Your task to perform on an android device: change notification settings in the gmail app Image 0: 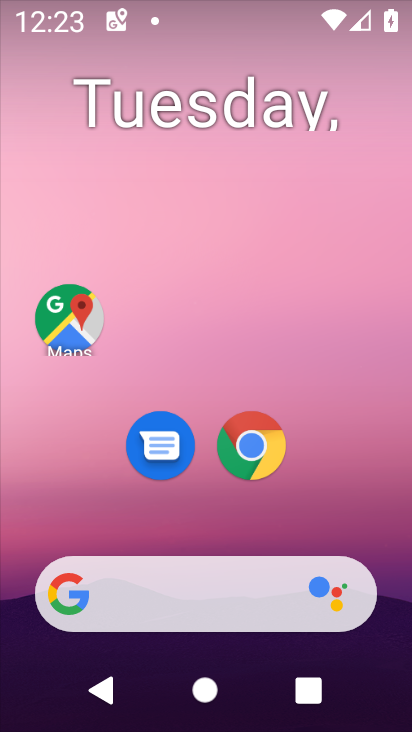
Step 0: drag from (378, 489) to (377, 153)
Your task to perform on an android device: change notification settings in the gmail app Image 1: 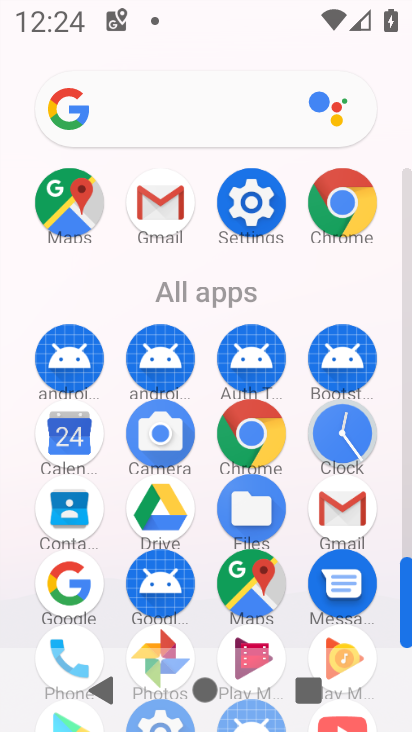
Step 1: drag from (386, 540) to (389, 318)
Your task to perform on an android device: change notification settings in the gmail app Image 2: 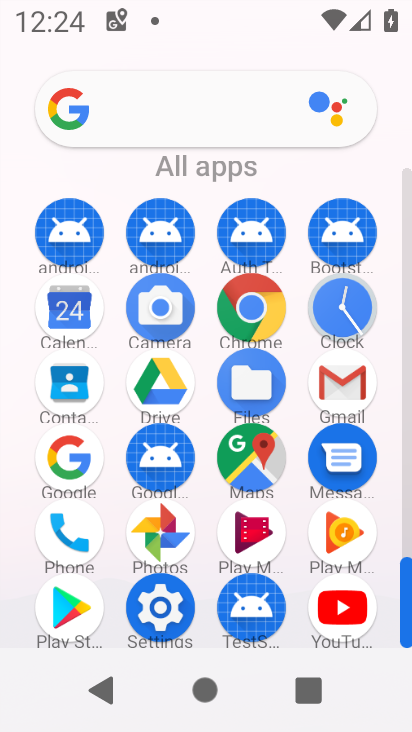
Step 2: click (335, 377)
Your task to perform on an android device: change notification settings in the gmail app Image 3: 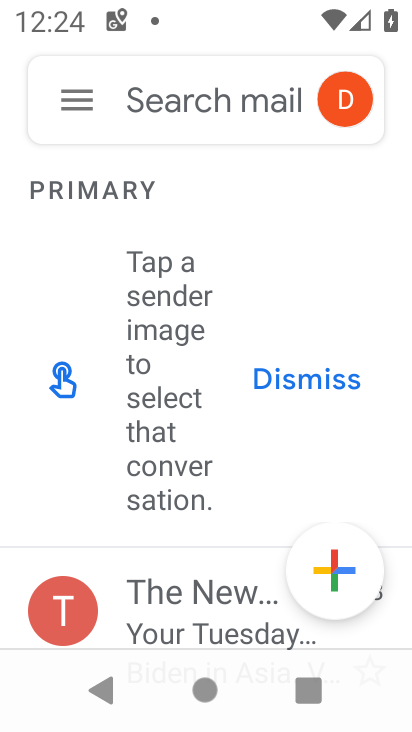
Step 3: click (78, 103)
Your task to perform on an android device: change notification settings in the gmail app Image 4: 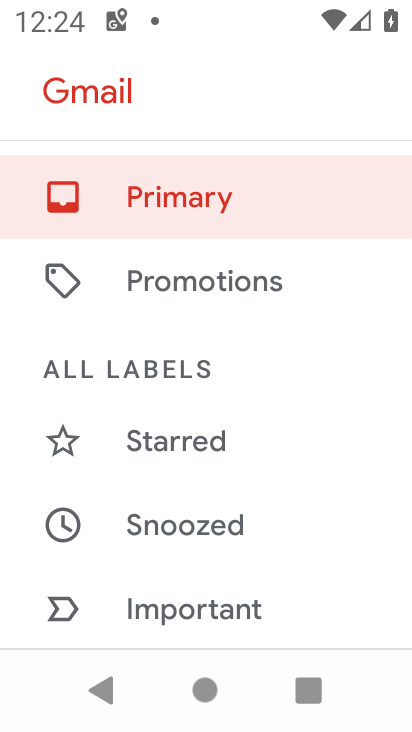
Step 4: drag from (363, 522) to (354, 353)
Your task to perform on an android device: change notification settings in the gmail app Image 5: 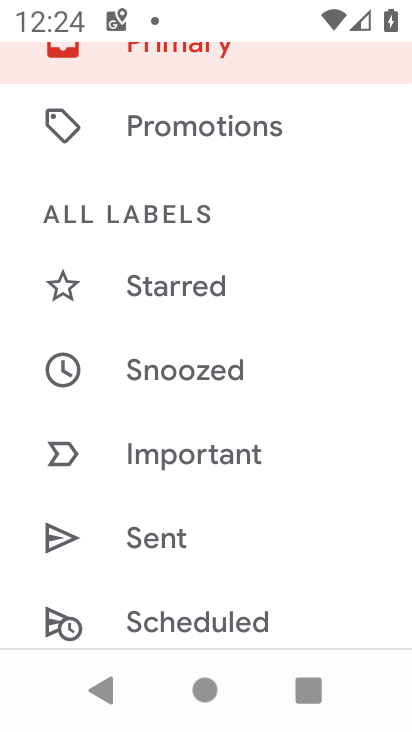
Step 5: drag from (325, 563) to (323, 414)
Your task to perform on an android device: change notification settings in the gmail app Image 6: 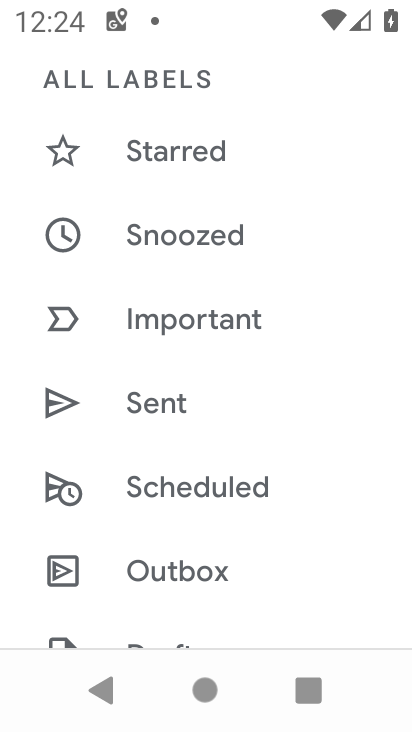
Step 6: drag from (321, 578) to (331, 445)
Your task to perform on an android device: change notification settings in the gmail app Image 7: 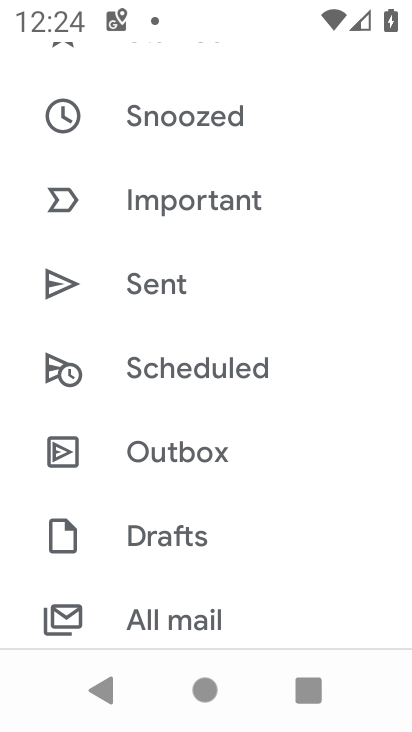
Step 7: drag from (322, 579) to (329, 423)
Your task to perform on an android device: change notification settings in the gmail app Image 8: 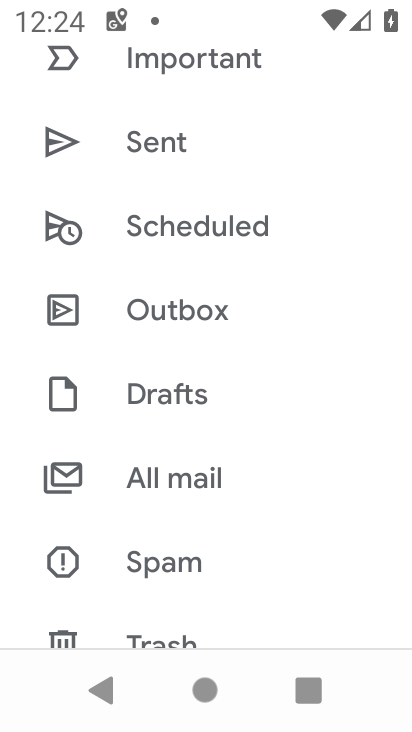
Step 8: drag from (319, 590) to (321, 407)
Your task to perform on an android device: change notification settings in the gmail app Image 9: 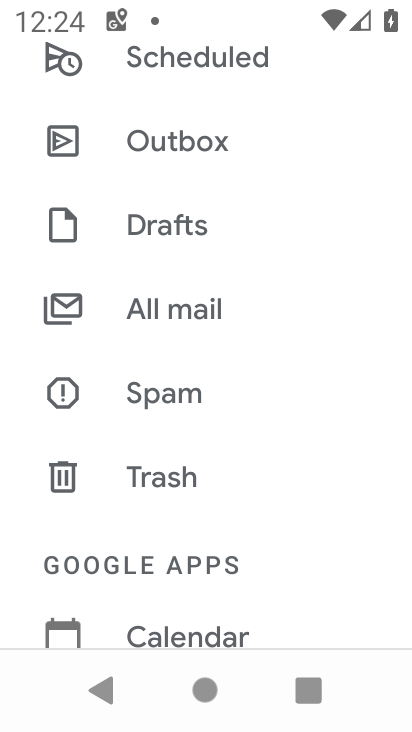
Step 9: drag from (311, 591) to (314, 428)
Your task to perform on an android device: change notification settings in the gmail app Image 10: 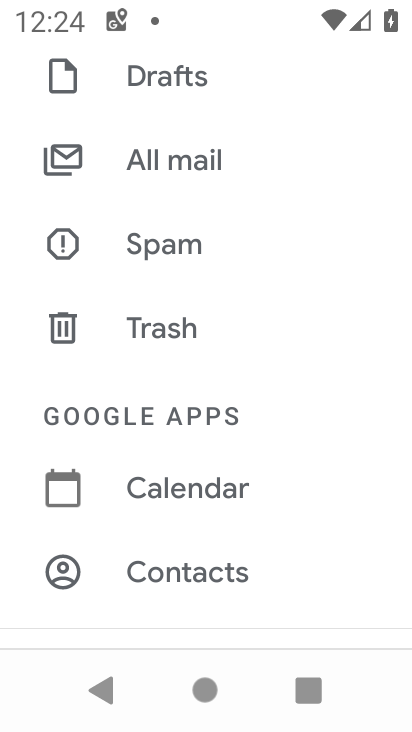
Step 10: drag from (319, 571) to (314, 404)
Your task to perform on an android device: change notification settings in the gmail app Image 11: 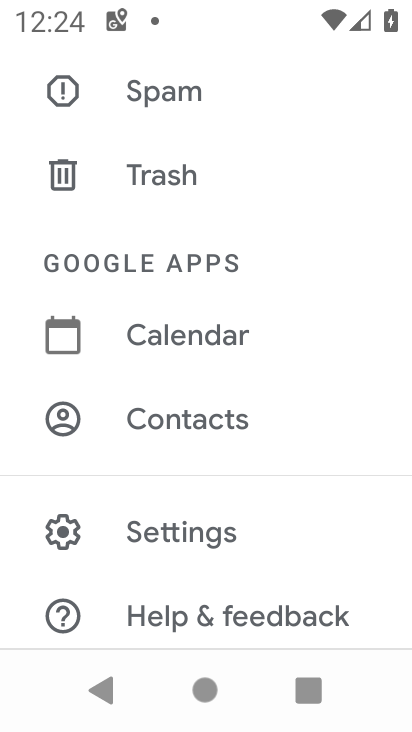
Step 11: click (244, 546)
Your task to perform on an android device: change notification settings in the gmail app Image 12: 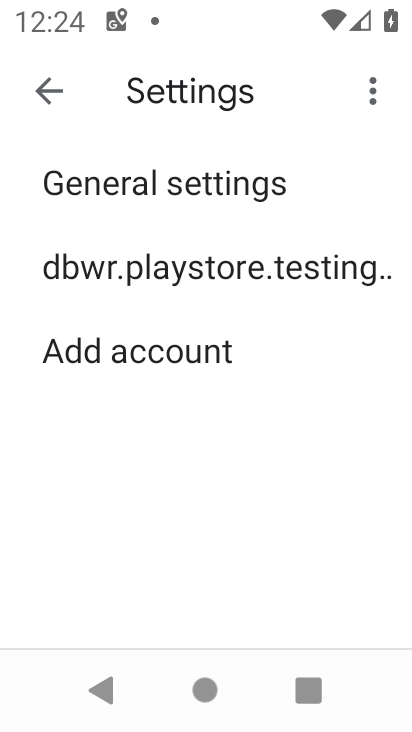
Step 12: click (296, 270)
Your task to perform on an android device: change notification settings in the gmail app Image 13: 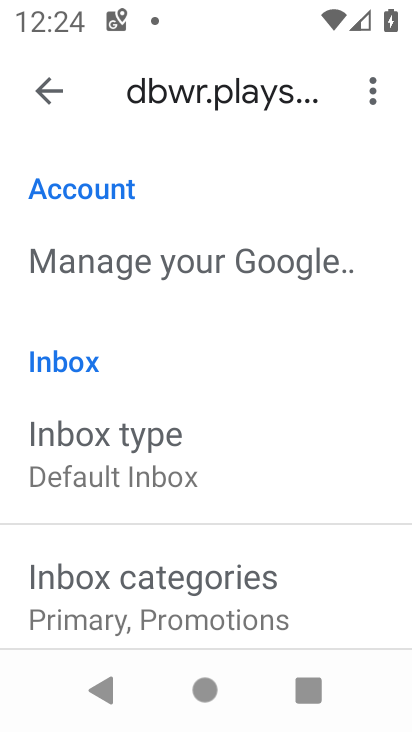
Step 13: drag from (318, 520) to (327, 412)
Your task to perform on an android device: change notification settings in the gmail app Image 14: 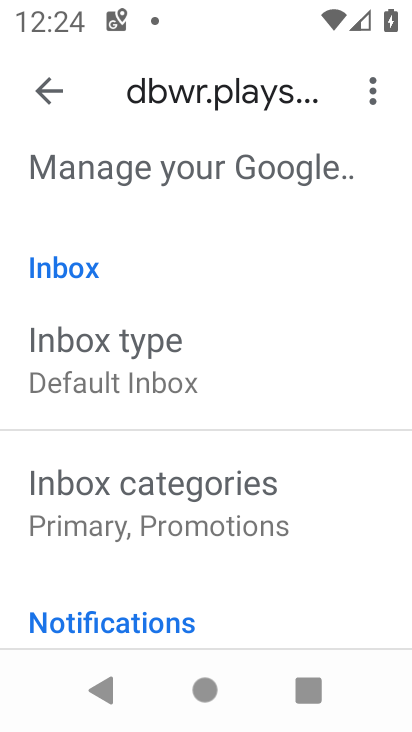
Step 14: drag from (300, 575) to (298, 404)
Your task to perform on an android device: change notification settings in the gmail app Image 15: 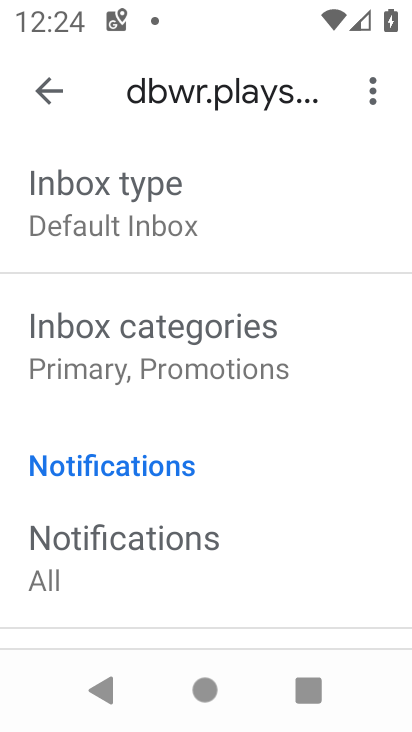
Step 15: click (130, 555)
Your task to perform on an android device: change notification settings in the gmail app Image 16: 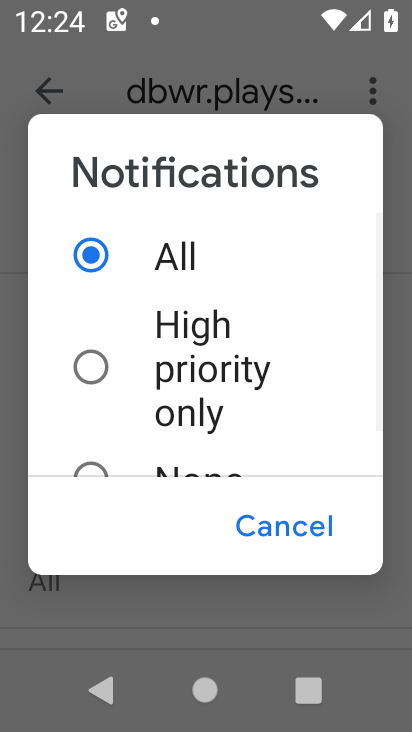
Step 16: click (162, 382)
Your task to perform on an android device: change notification settings in the gmail app Image 17: 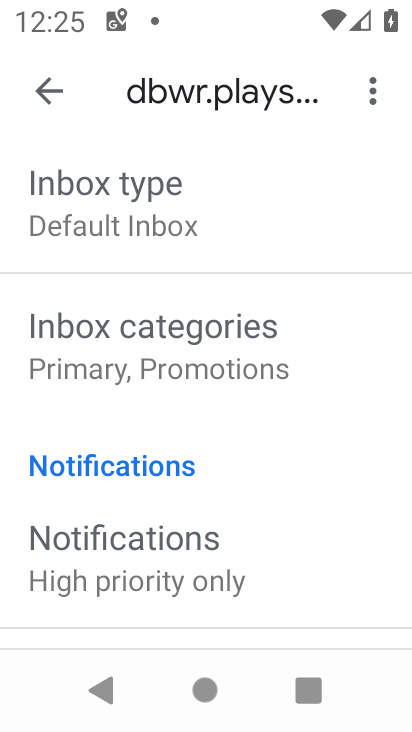
Step 17: task complete